Your task to perform on an android device: What's a good restaurant in Atlanta? Image 0: 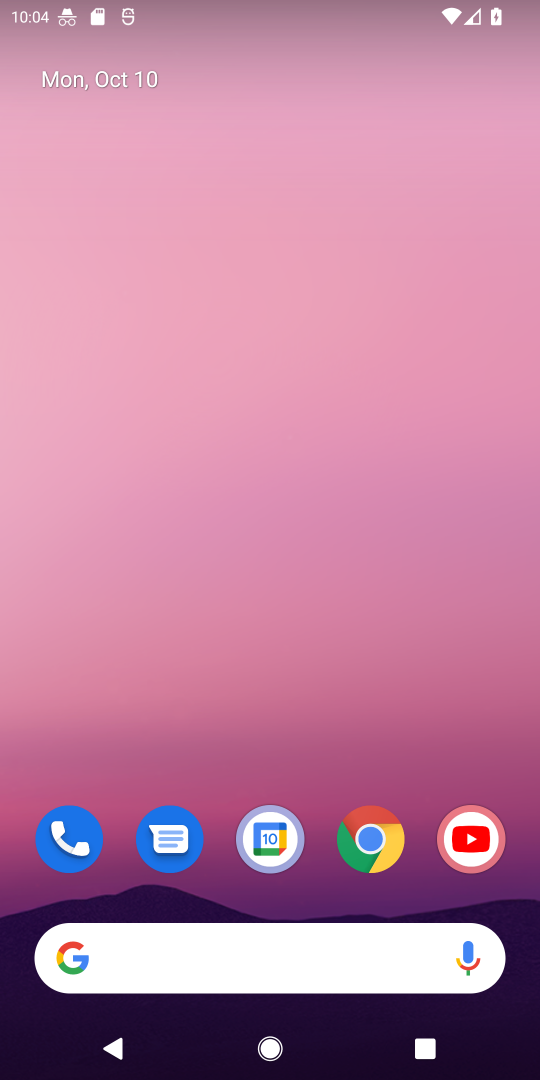
Step 0: drag from (326, 895) to (381, 43)
Your task to perform on an android device: What's a good restaurant in Atlanta? Image 1: 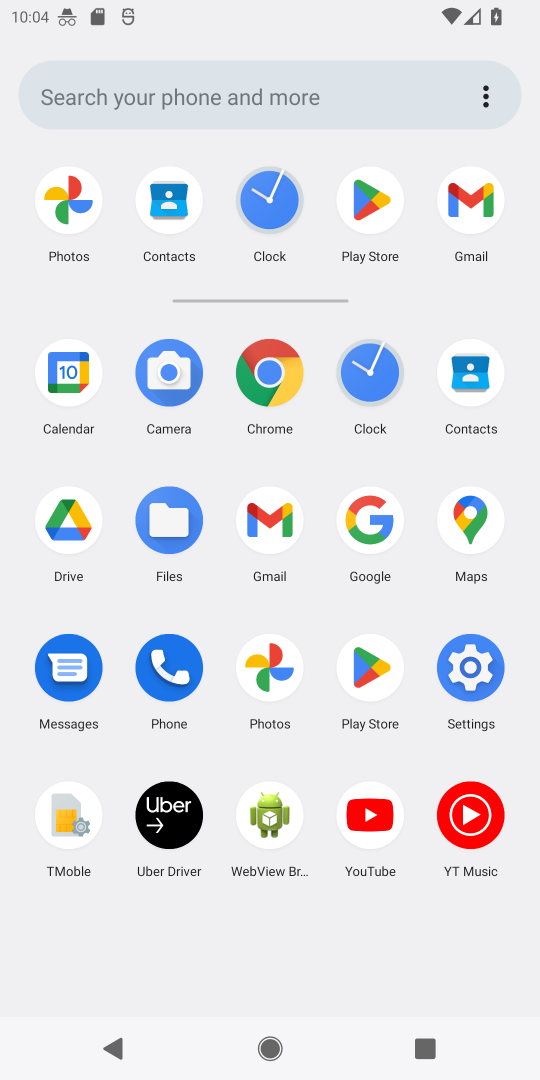
Step 1: click (283, 370)
Your task to perform on an android device: What's a good restaurant in Atlanta? Image 2: 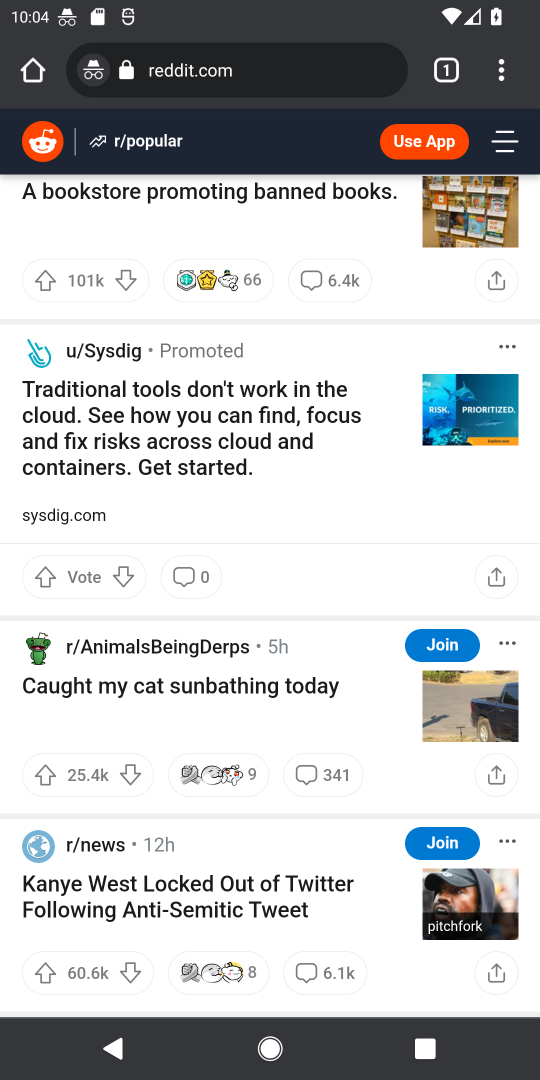
Step 2: click (266, 75)
Your task to perform on an android device: What's a good restaurant in Atlanta? Image 3: 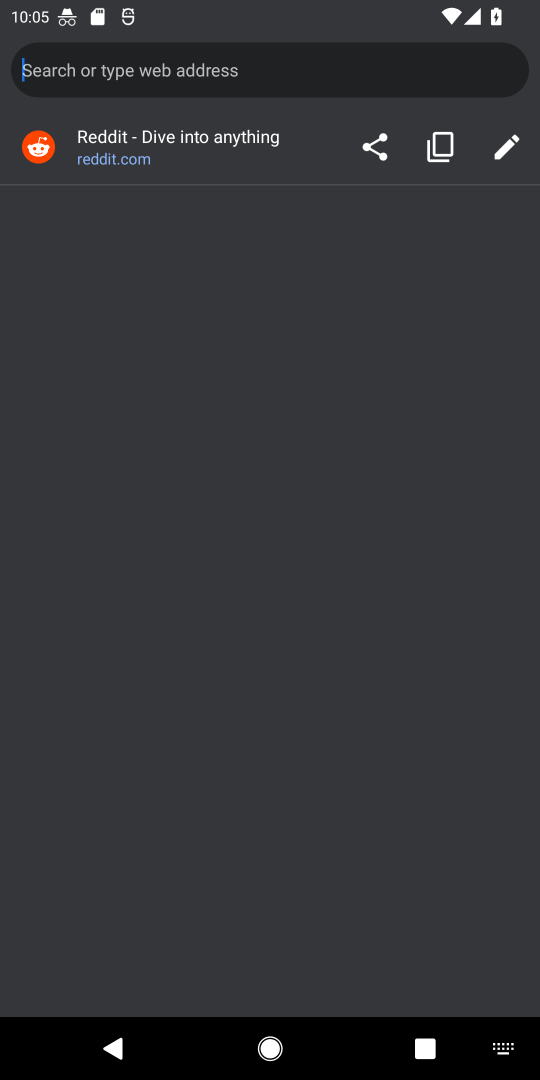
Step 3: type "What's good restaurant in Atlanta?"
Your task to perform on an android device: What's a good restaurant in Atlanta? Image 4: 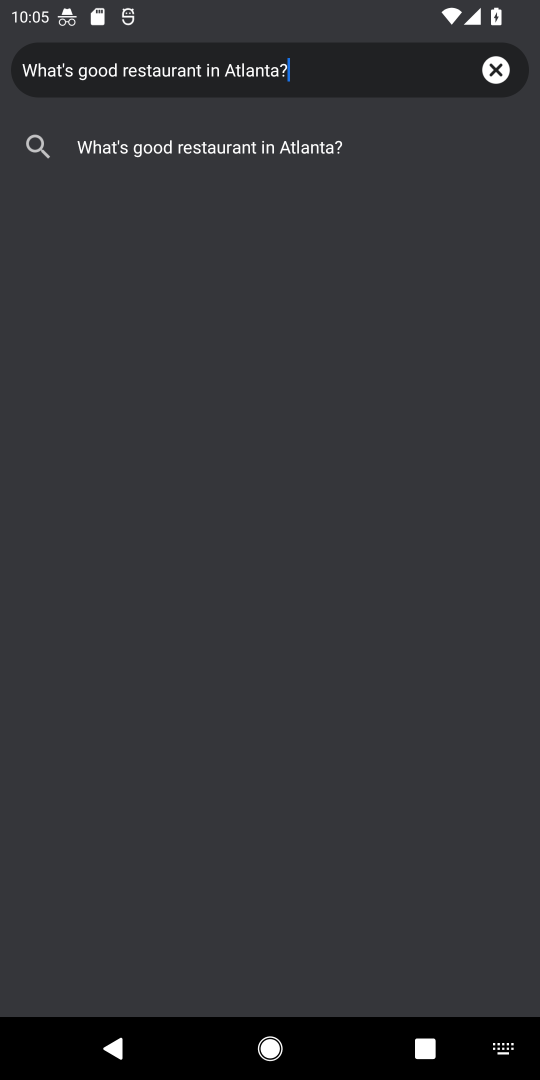
Step 4: press enter
Your task to perform on an android device: What's a good restaurant in Atlanta? Image 5: 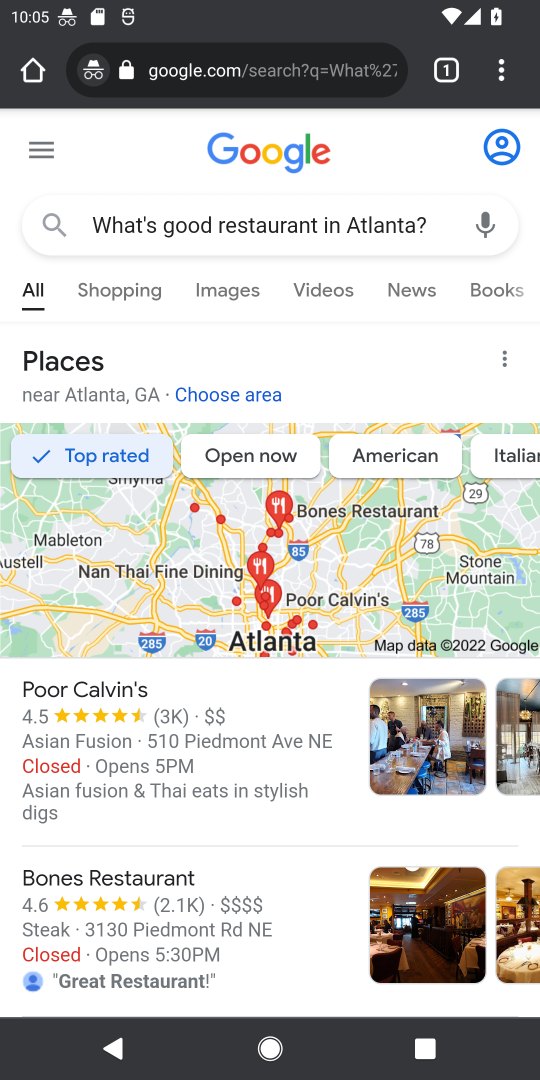
Step 5: task complete